Your task to perform on an android device: turn off location Image 0: 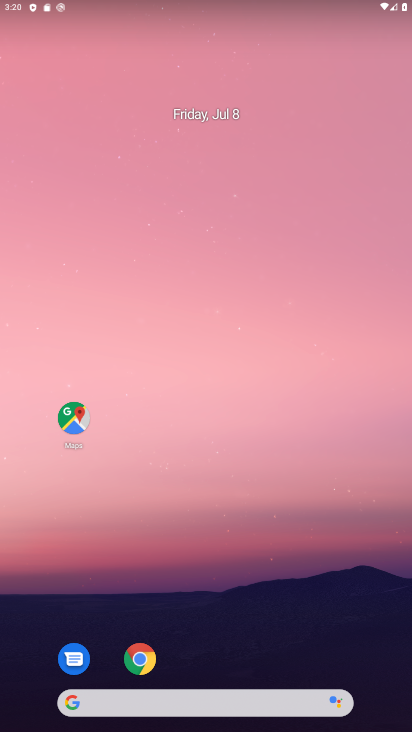
Step 0: drag from (208, 671) to (202, 162)
Your task to perform on an android device: turn off location Image 1: 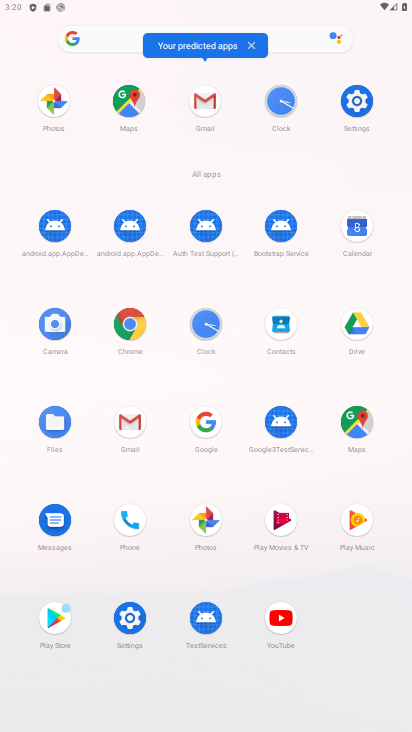
Step 1: click (353, 111)
Your task to perform on an android device: turn off location Image 2: 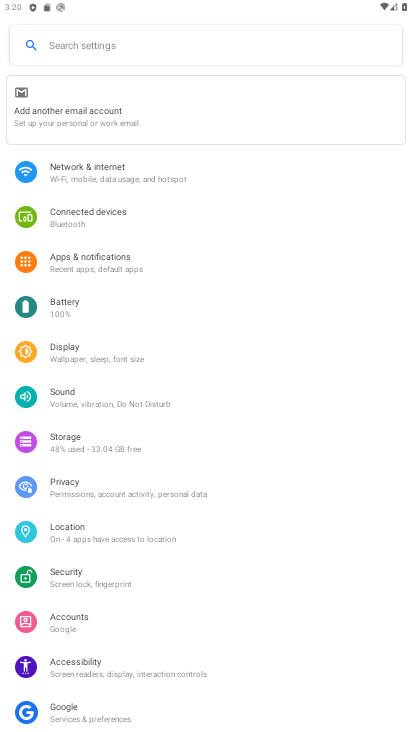
Step 2: click (100, 540)
Your task to perform on an android device: turn off location Image 3: 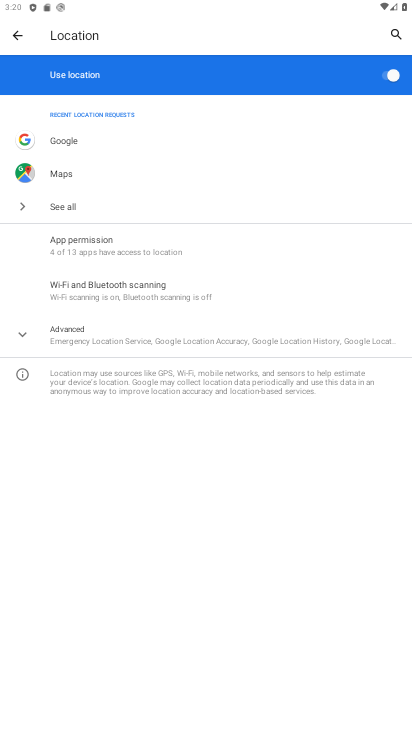
Step 3: click (389, 78)
Your task to perform on an android device: turn off location Image 4: 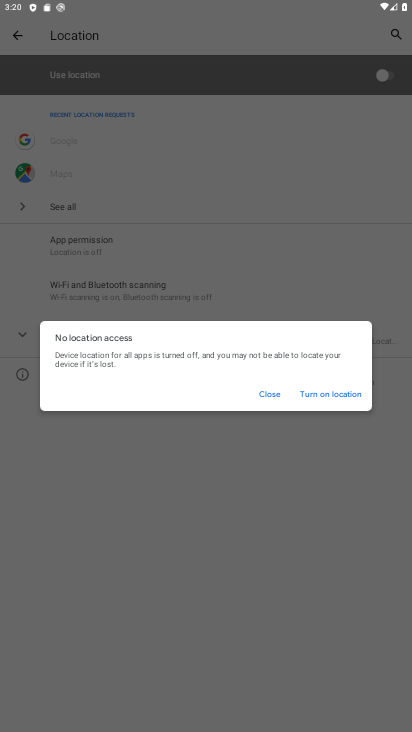
Step 4: task complete